Your task to perform on an android device: Show me productivity apps on the Play Store Image 0: 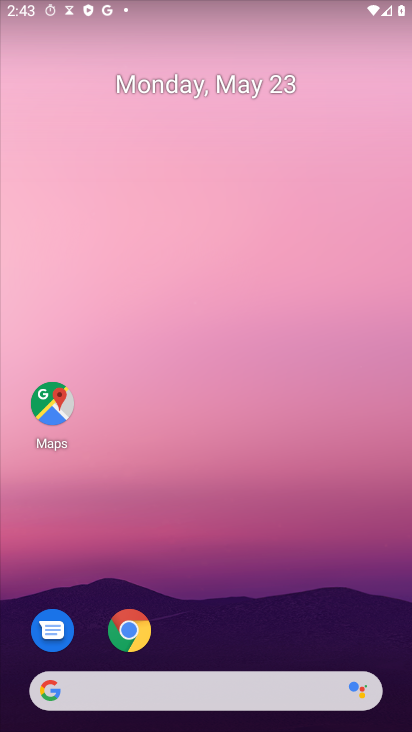
Step 0: drag from (327, 571) to (334, 126)
Your task to perform on an android device: Show me productivity apps on the Play Store Image 1: 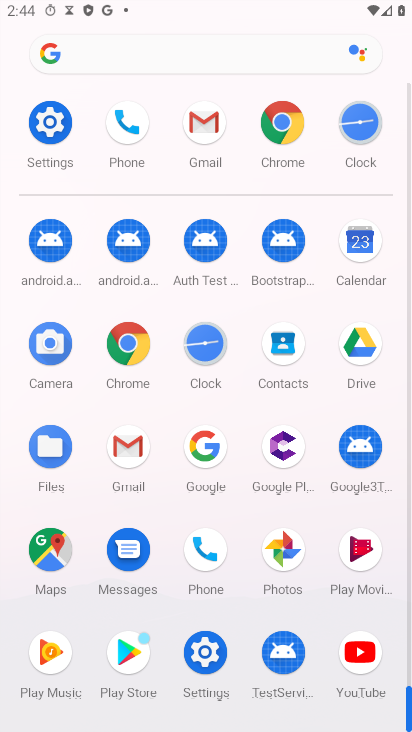
Step 1: drag from (404, 595) to (409, 268)
Your task to perform on an android device: Show me productivity apps on the Play Store Image 2: 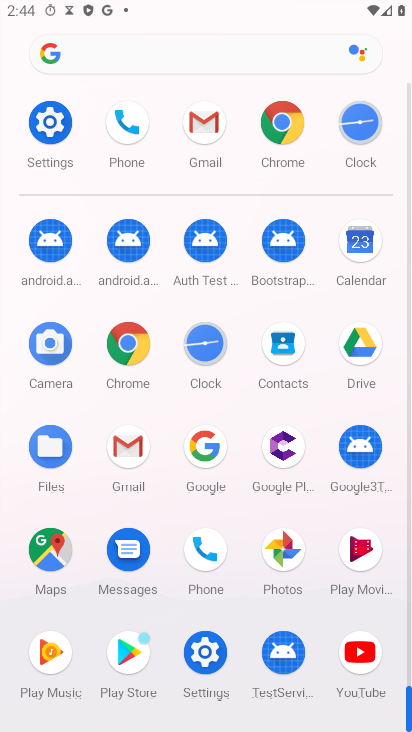
Step 2: click (126, 663)
Your task to perform on an android device: Show me productivity apps on the Play Store Image 3: 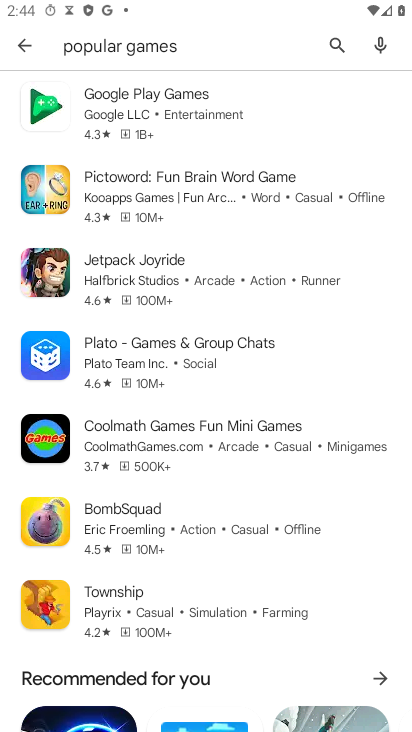
Step 3: click (329, 43)
Your task to perform on an android device: Show me productivity apps on the Play Store Image 4: 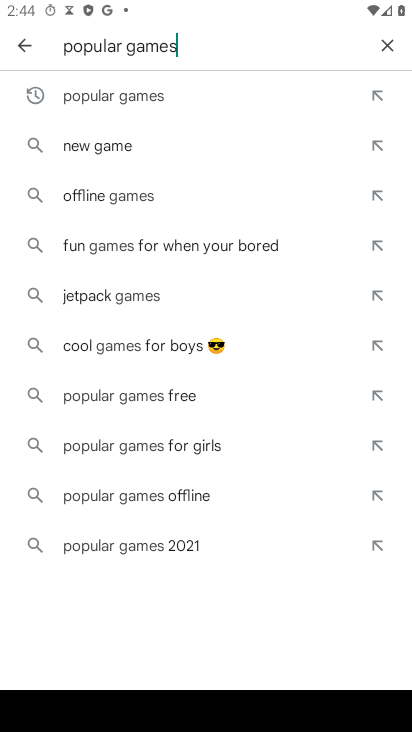
Step 4: click (385, 48)
Your task to perform on an android device: Show me productivity apps on the Play Store Image 5: 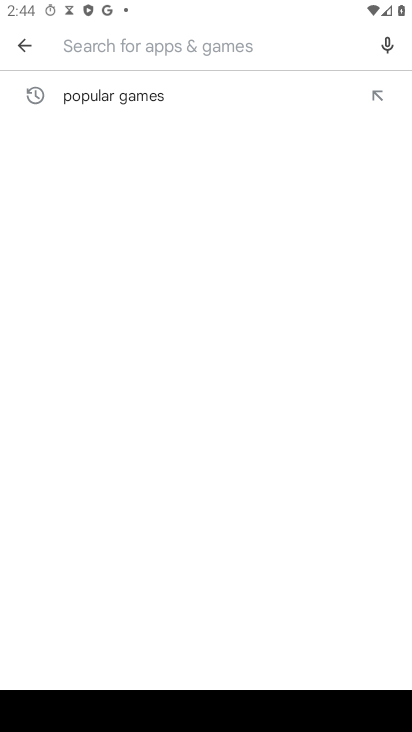
Step 5: type "poductivity apps"
Your task to perform on an android device: Show me productivity apps on the Play Store Image 6: 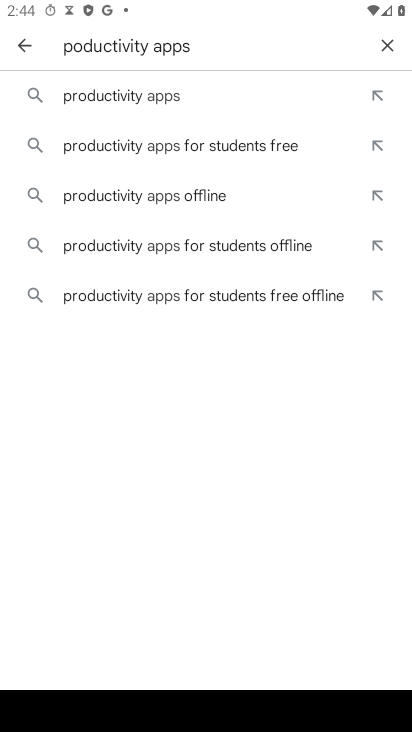
Step 6: click (91, 96)
Your task to perform on an android device: Show me productivity apps on the Play Store Image 7: 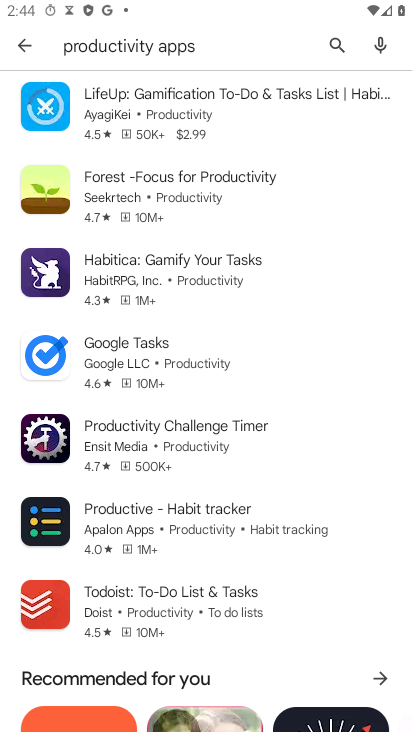
Step 7: task complete